Your task to perform on an android device: read, delete, or share a saved page in the chrome app Image 0: 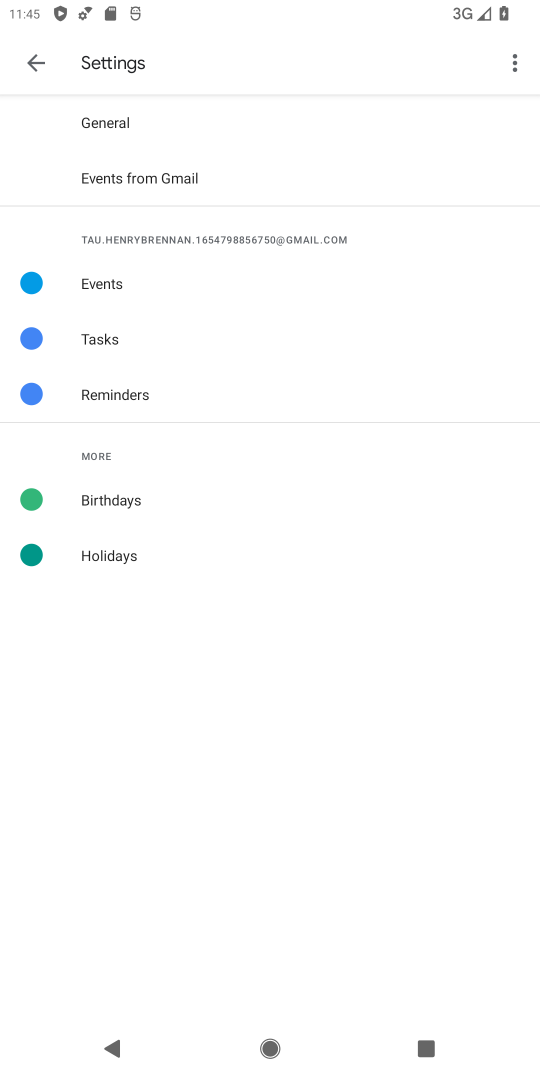
Step 0: drag from (207, 724) to (238, 466)
Your task to perform on an android device: read, delete, or share a saved page in the chrome app Image 1: 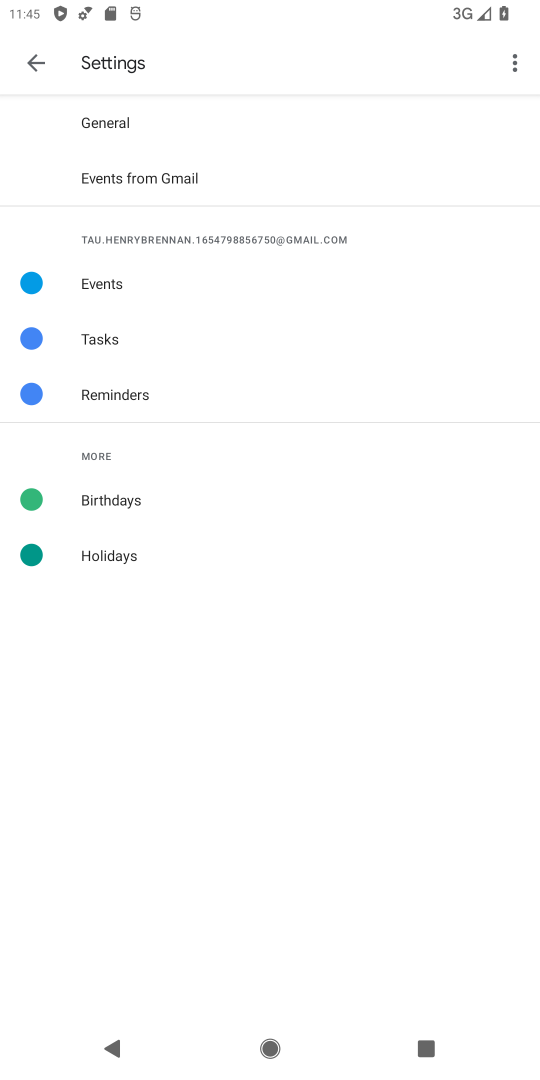
Step 1: press home button
Your task to perform on an android device: read, delete, or share a saved page in the chrome app Image 2: 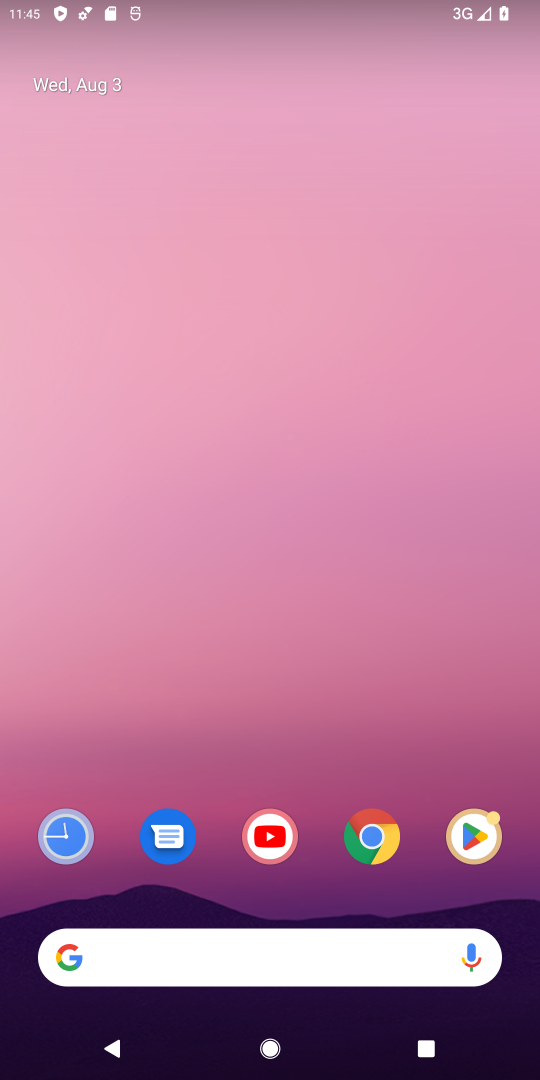
Step 2: drag from (236, 546) to (240, 421)
Your task to perform on an android device: read, delete, or share a saved page in the chrome app Image 3: 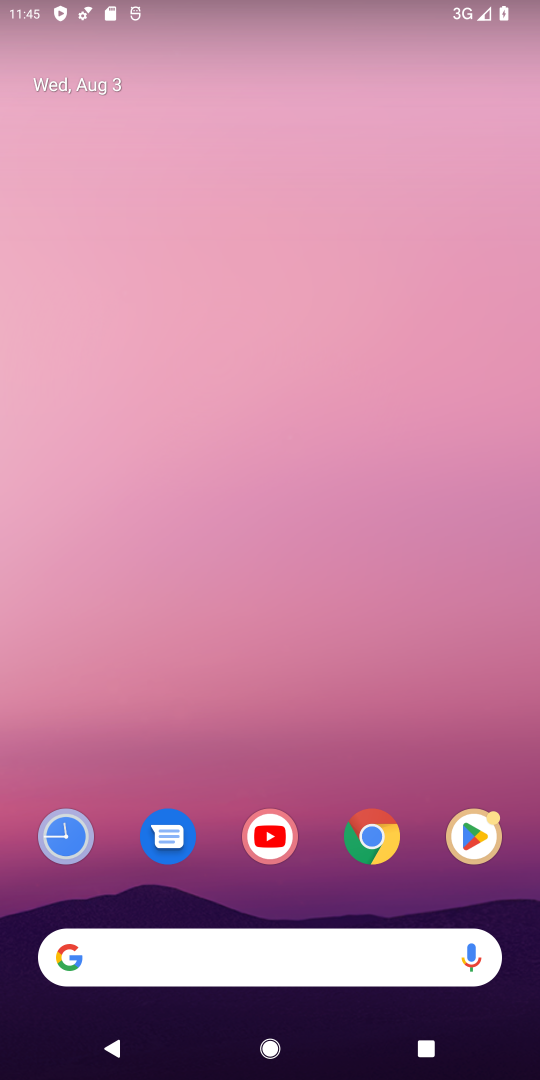
Step 3: click (380, 839)
Your task to perform on an android device: read, delete, or share a saved page in the chrome app Image 4: 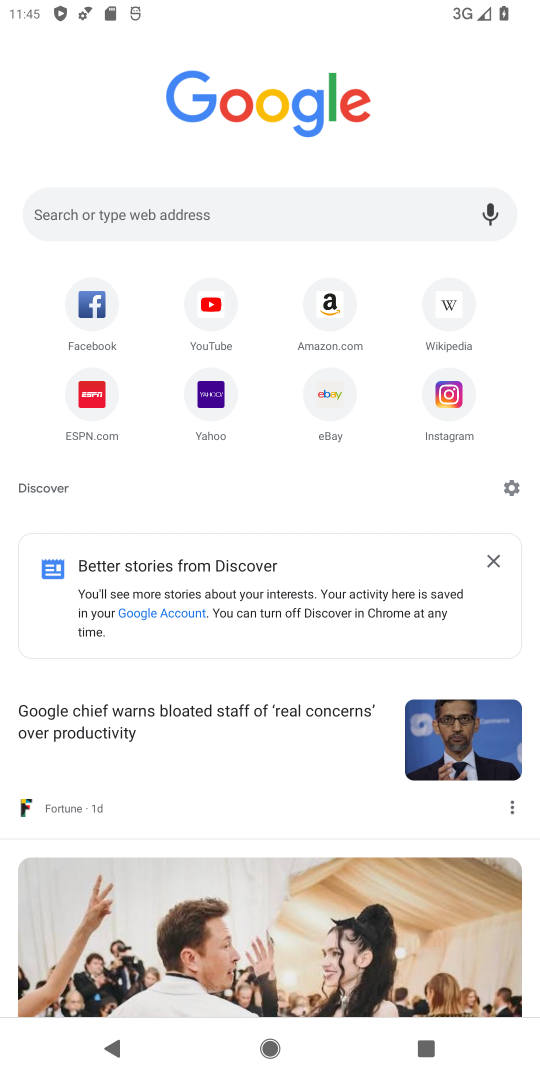
Step 4: drag from (346, 194) to (319, 551)
Your task to perform on an android device: read, delete, or share a saved page in the chrome app Image 5: 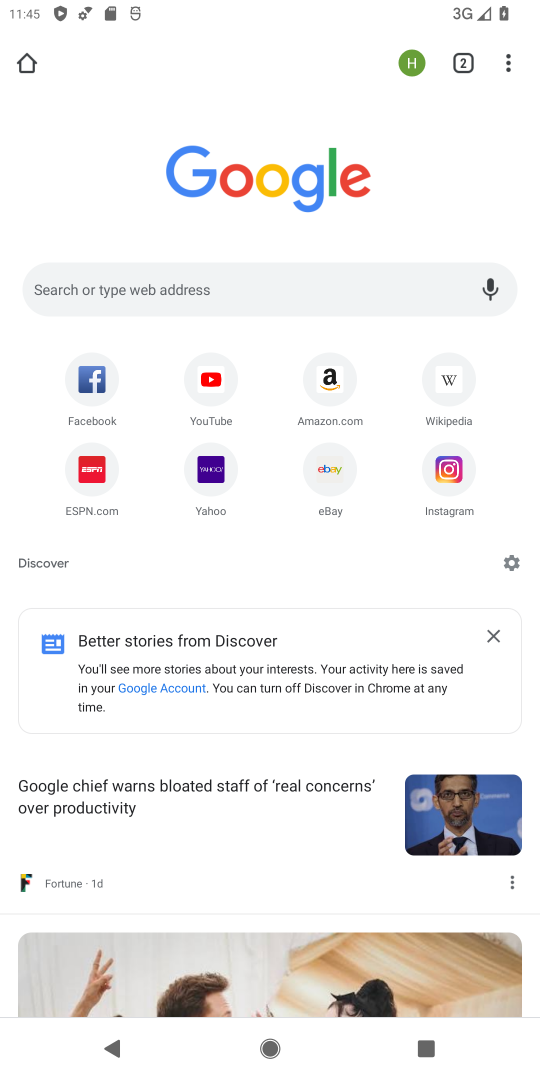
Step 5: drag from (493, 63) to (349, 331)
Your task to perform on an android device: read, delete, or share a saved page in the chrome app Image 6: 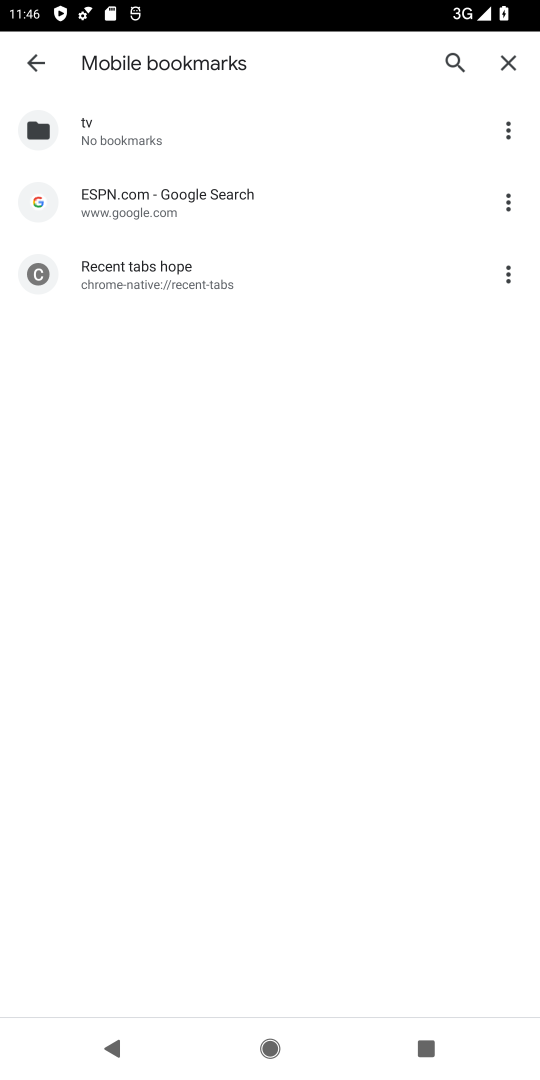
Step 6: drag from (308, 319) to (289, 246)
Your task to perform on an android device: read, delete, or share a saved page in the chrome app Image 7: 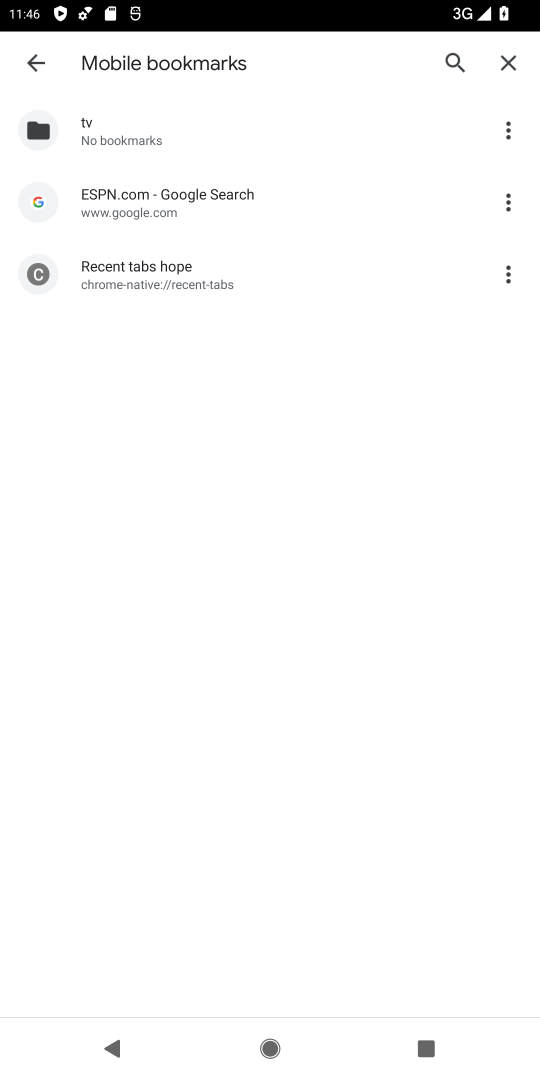
Step 7: drag from (301, 659) to (280, 129)
Your task to perform on an android device: read, delete, or share a saved page in the chrome app Image 8: 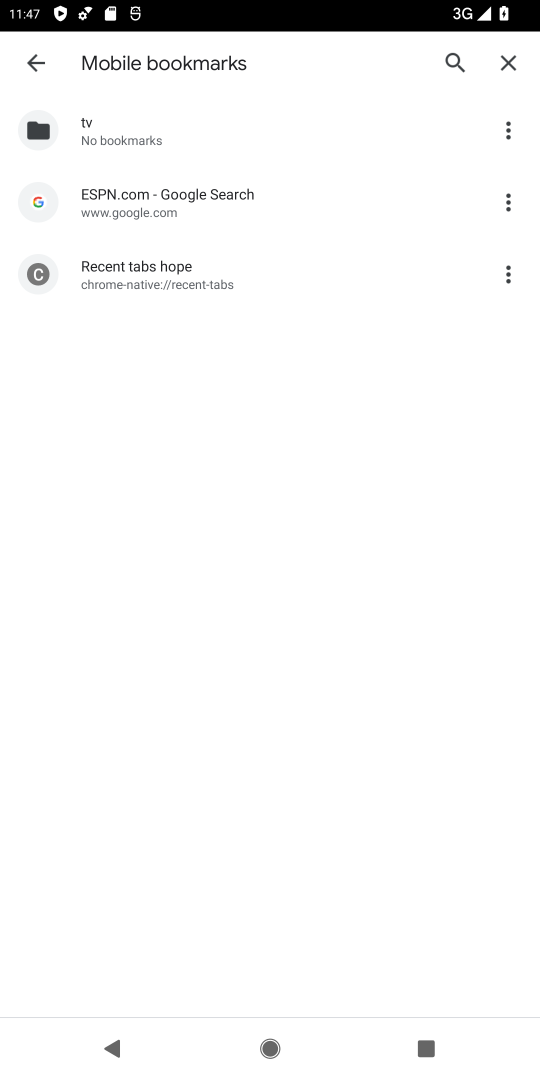
Step 8: click (493, 60)
Your task to perform on an android device: read, delete, or share a saved page in the chrome app Image 9: 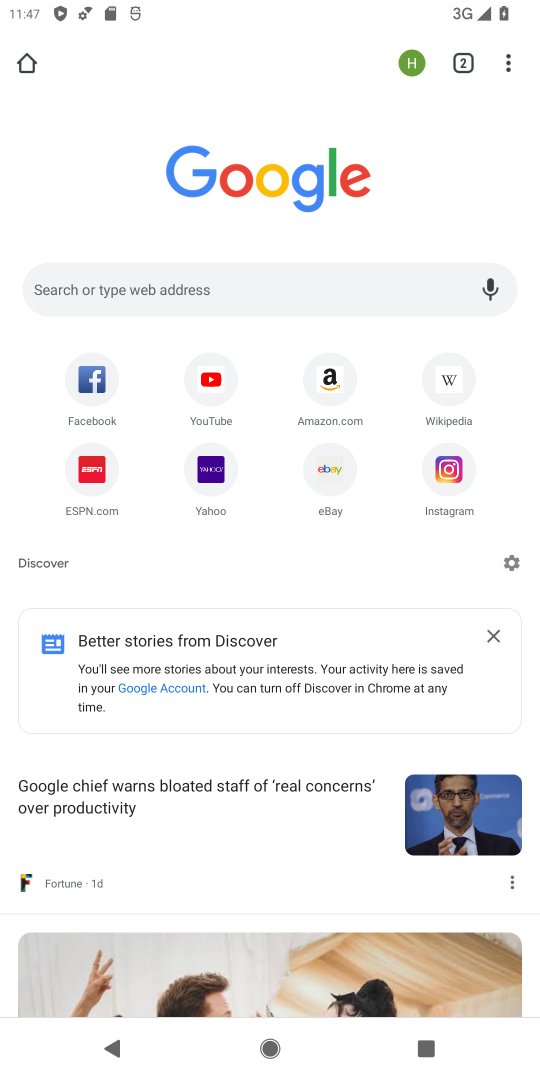
Step 9: drag from (241, 662) to (345, 190)
Your task to perform on an android device: read, delete, or share a saved page in the chrome app Image 10: 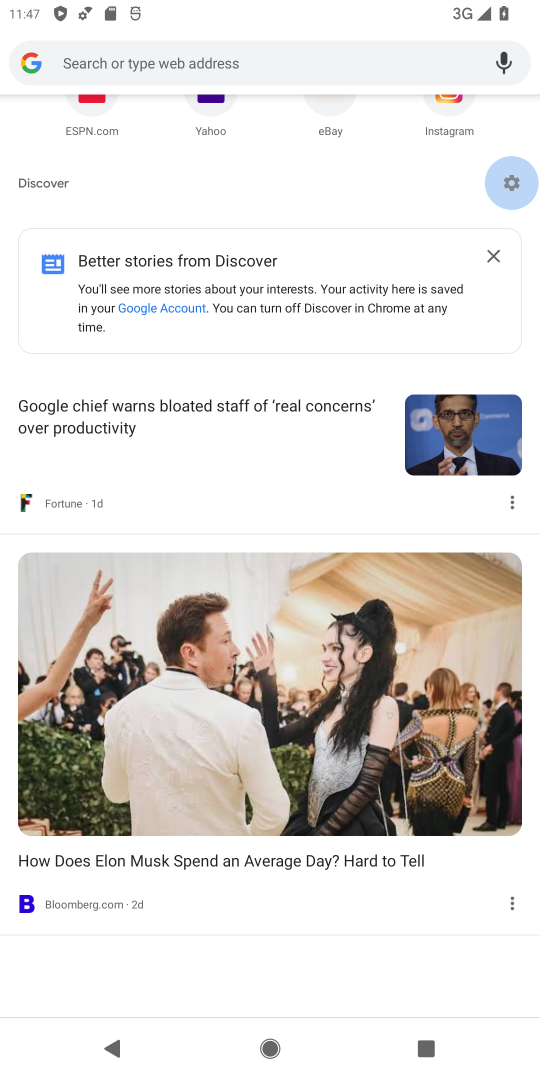
Step 10: drag from (266, 669) to (412, 1076)
Your task to perform on an android device: read, delete, or share a saved page in the chrome app Image 11: 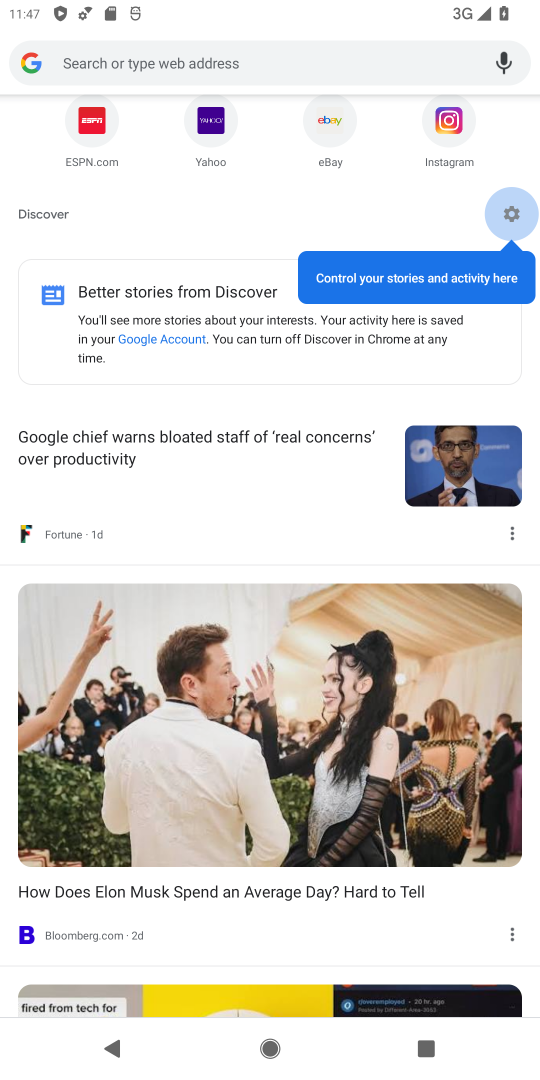
Step 11: drag from (277, 267) to (395, 1019)
Your task to perform on an android device: read, delete, or share a saved page in the chrome app Image 12: 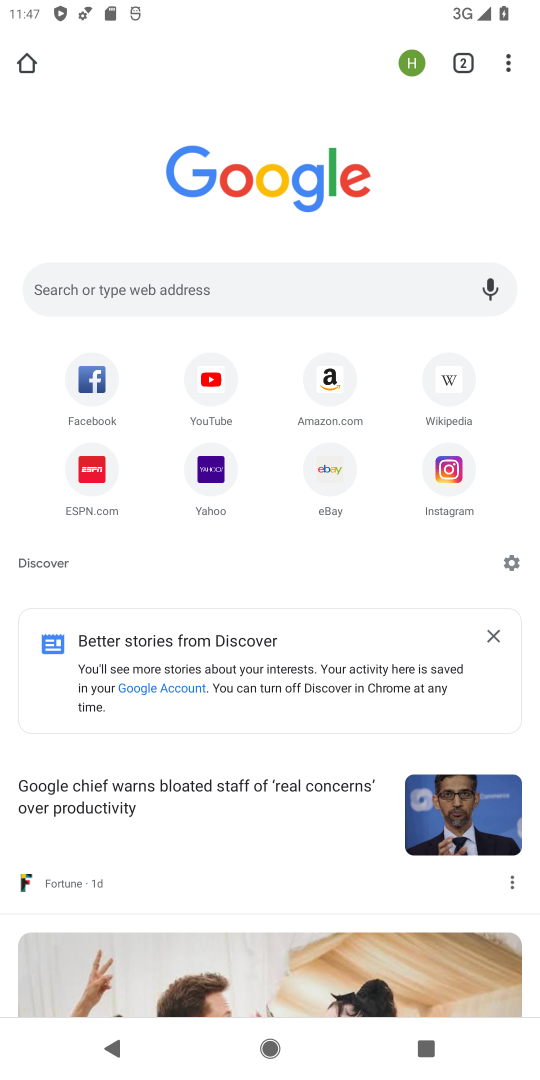
Step 12: drag from (511, 62) to (352, 240)
Your task to perform on an android device: read, delete, or share a saved page in the chrome app Image 13: 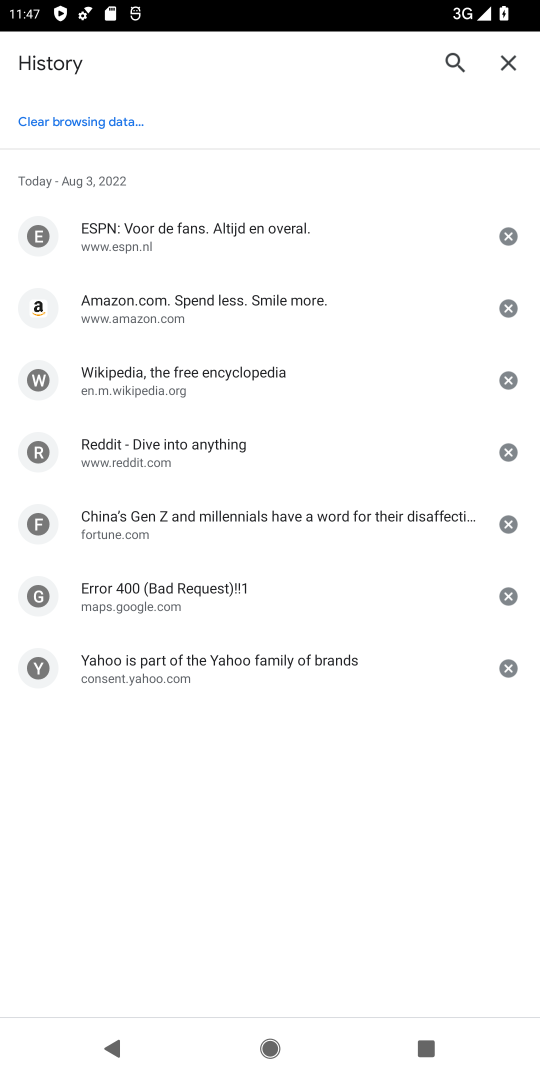
Step 13: click (501, 75)
Your task to perform on an android device: read, delete, or share a saved page in the chrome app Image 14: 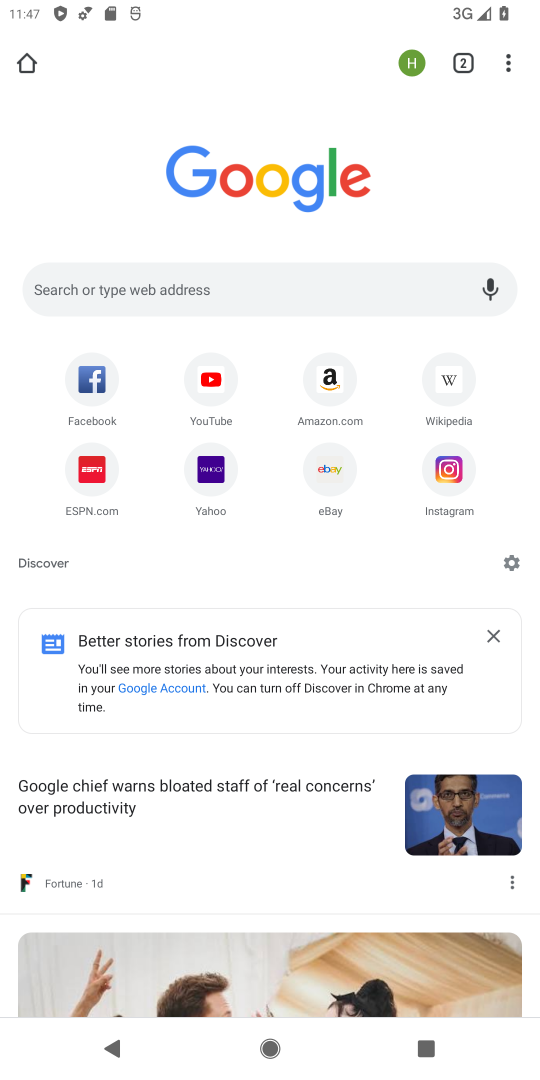
Step 14: drag from (508, 59) to (341, 341)
Your task to perform on an android device: read, delete, or share a saved page in the chrome app Image 15: 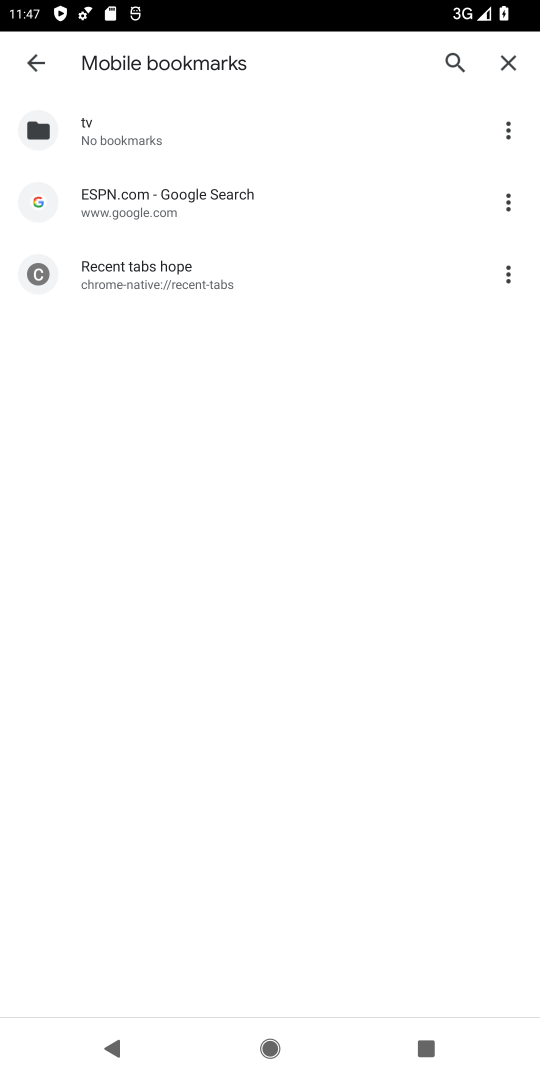
Step 15: drag from (318, 724) to (341, 373)
Your task to perform on an android device: read, delete, or share a saved page in the chrome app Image 16: 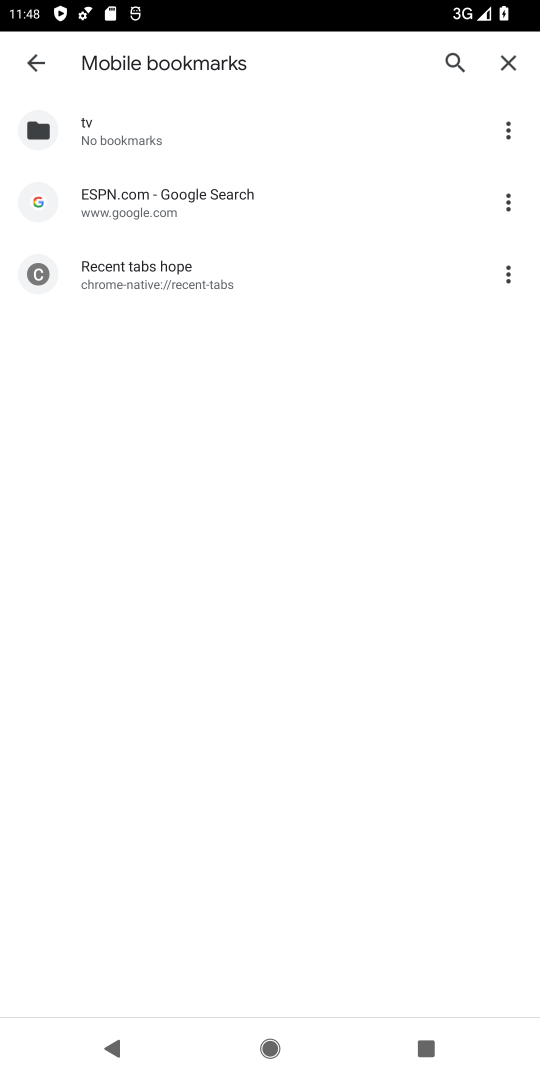
Step 16: drag from (265, 748) to (287, 417)
Your task to perform on an android device: read, delete, or share a saved page in the chrome app Image 17: 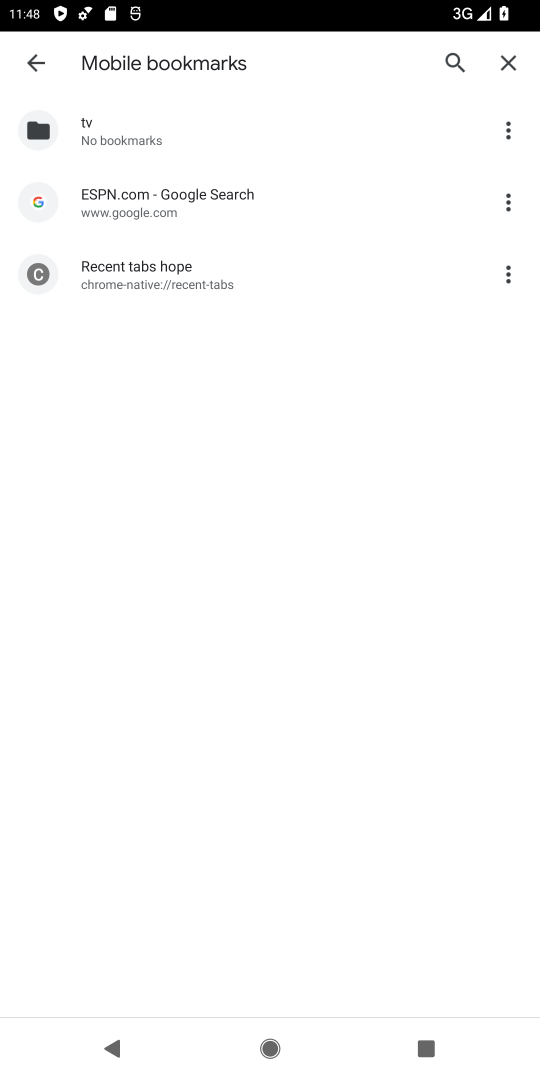
Step 17: drag from (267, 288) to (242, 1073)
Your task to perform on an android device: read, delete, or share a saved page in the chrome app Image 18: 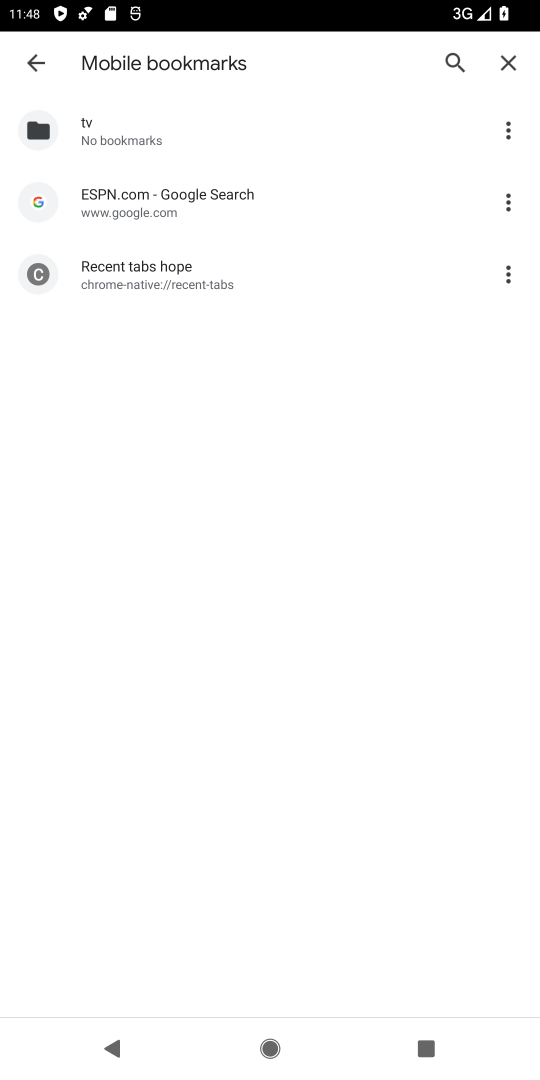
Step 18: click (248, 222)
Your task to perform on an android device: read, delete, or share a saved page in the chrome app Image 19: 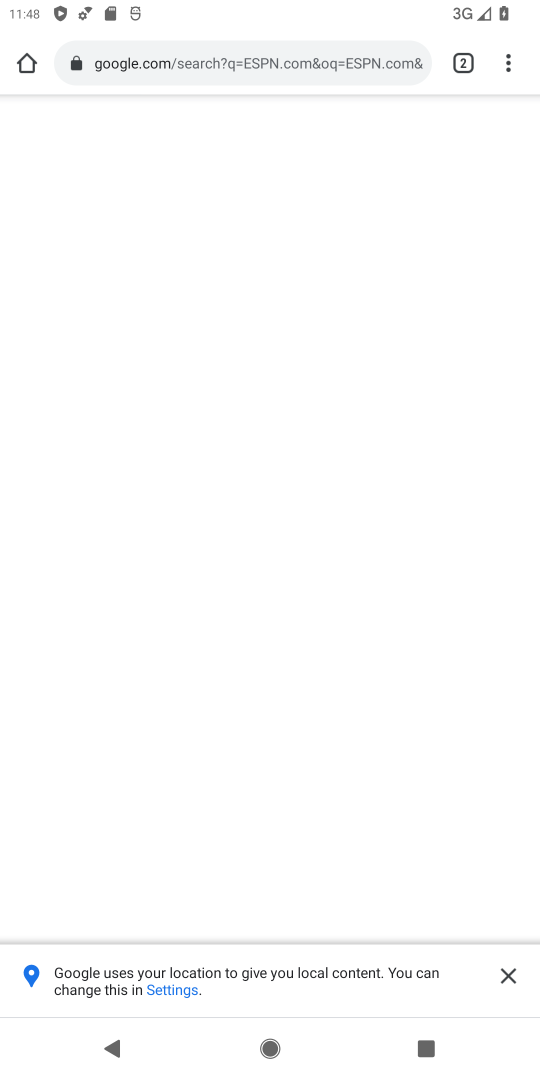
Step 19: task complete